Your task to perform on an android device: Open Chrome and go to settings Image 0: 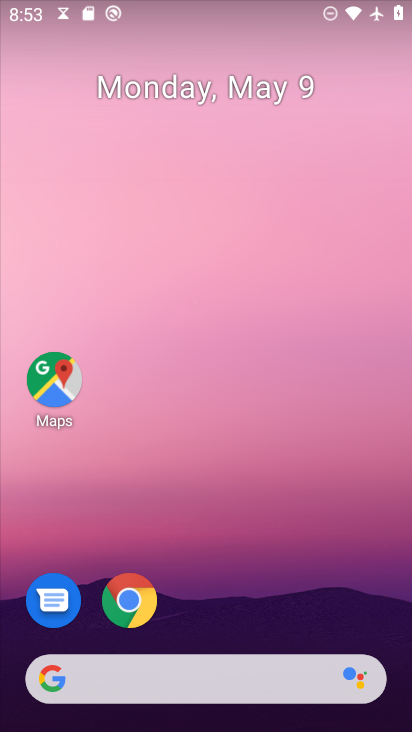
Step 0: drag from (225, 577) to (212, 10)
Your task to perform on an android device: Open Chrome and go to settings Image 1: 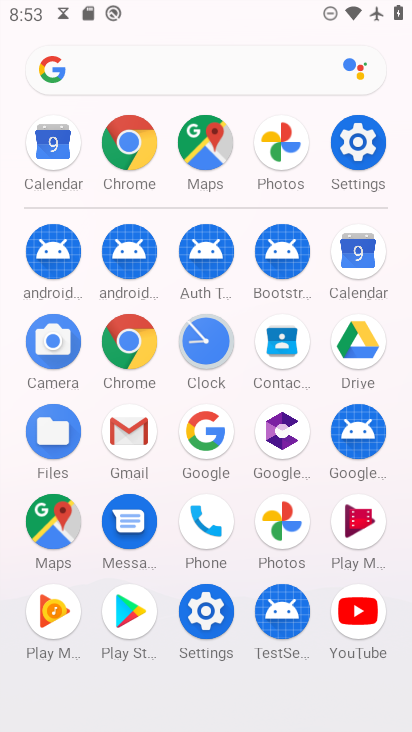
Step 1: drag from (16, 606) to (29, 250)
Your task to perform on an android device: Open Chrome and go to settings Image 2: 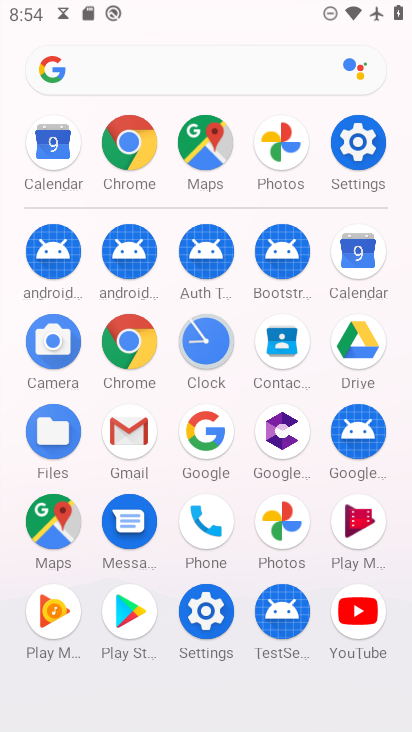
Step 2: click (126, 337)
Your task to perform on an android device: Open Chrome and go to settings Image 3: 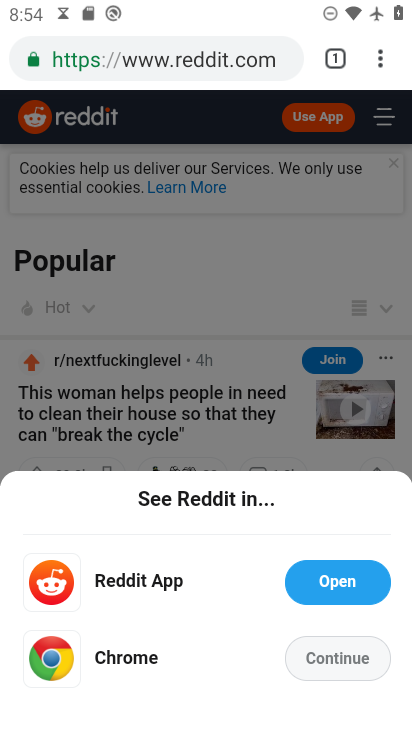
Step 3: task complete